Your task to perform on an android device: turn on improve location accuracy Image 0: 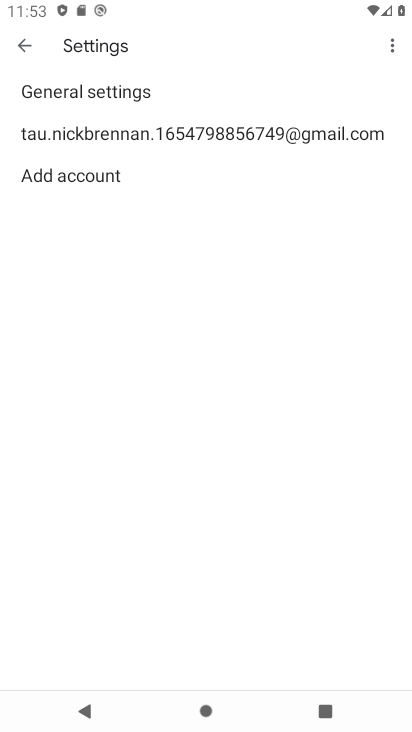
Step 0: press home button
Your task to perform on an android device: turn on improve location accuracy Image 1: 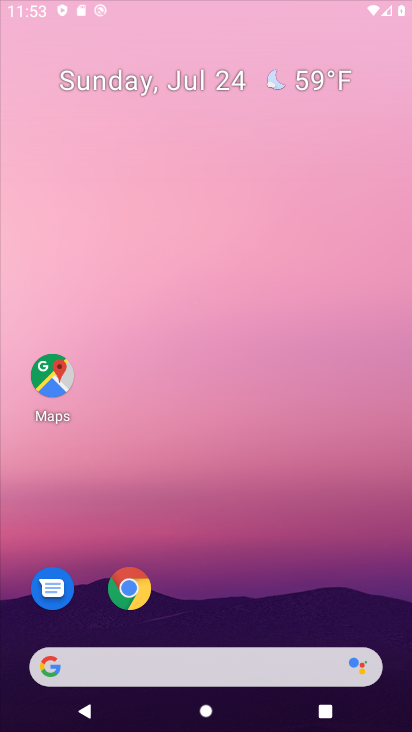
Step 1: drag from (355, 645) to (166, 90)
Your task to perform on an android device: turn on improve location accuracy Image 2: 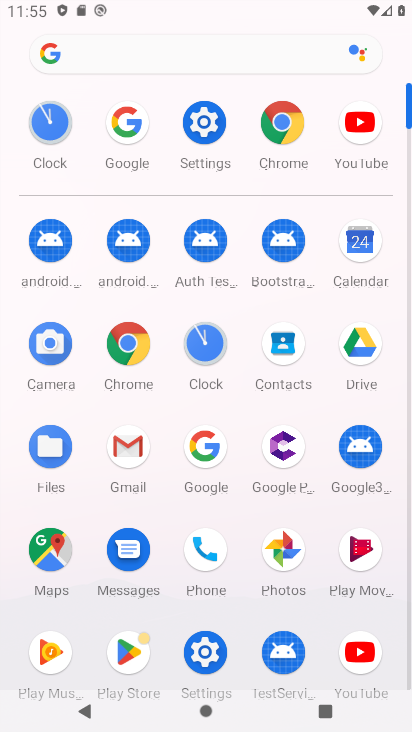
Step 2: click (210, 648)
Your task to perform on an android device: turn on improve location accuracy Image 3: 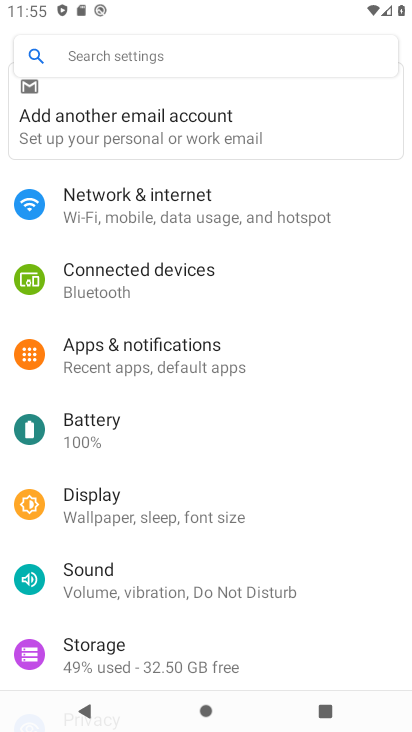
Step 3: drag from (95, 656) to (139, 199)
Your task to perform on an android device: turn on improve location accuracy Image 4: 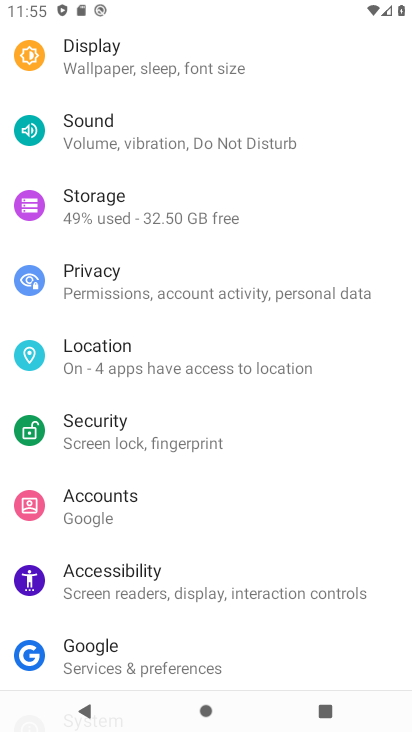
Step 4: click (135, 361)
Your task to perform on an android device: turn on improve location accuracy Image 5: 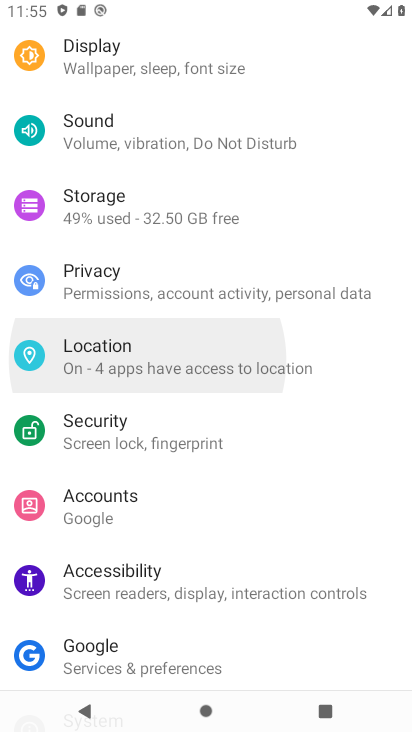
Step 5: click (136, 355)
Your task to perform on an android device: turn on improve location accuracy Image 6: 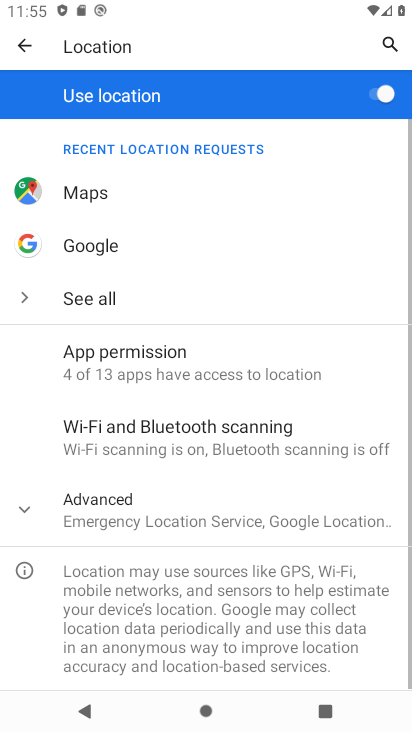
Step 6: click (87, 506)
Your task to perform on an android device: turn on improve location accuracy Image 7: 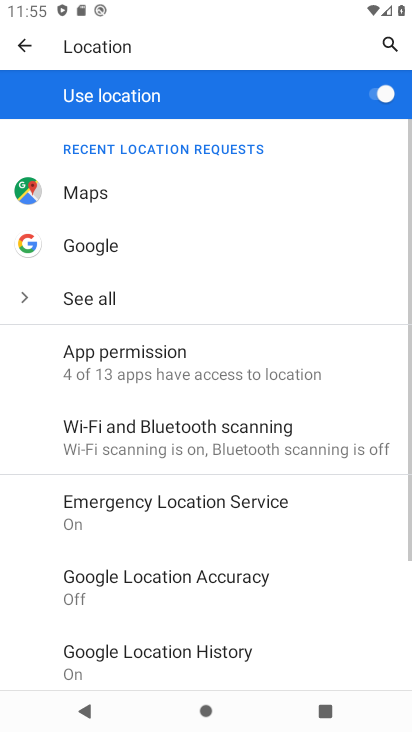
Step 7: click (170, 590)
Your task to perform on an android device: turn on improve location accuracy Image 8: 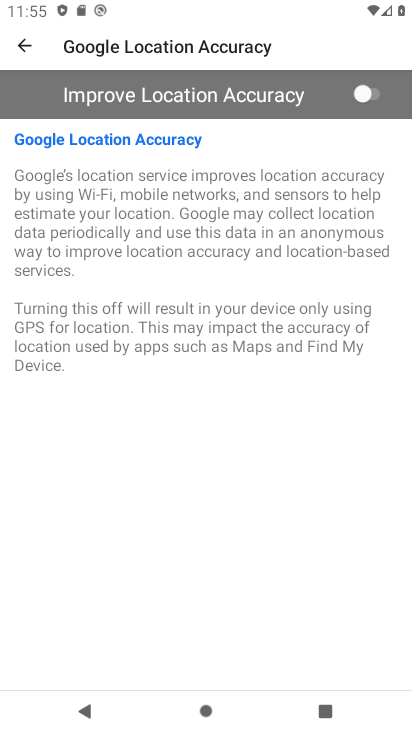
Step 8: click (366, 99)
Your task to perform on an android device: turn on improve location accuracy Image 9: 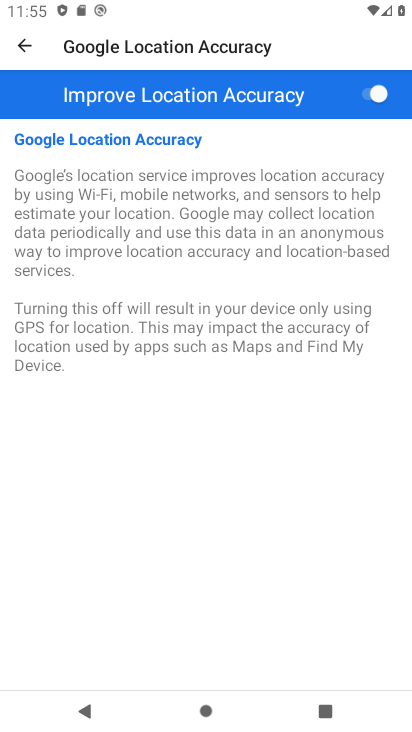
Step 9: task complete